Your task to perform on an android device: set the stopwatch Image 0: 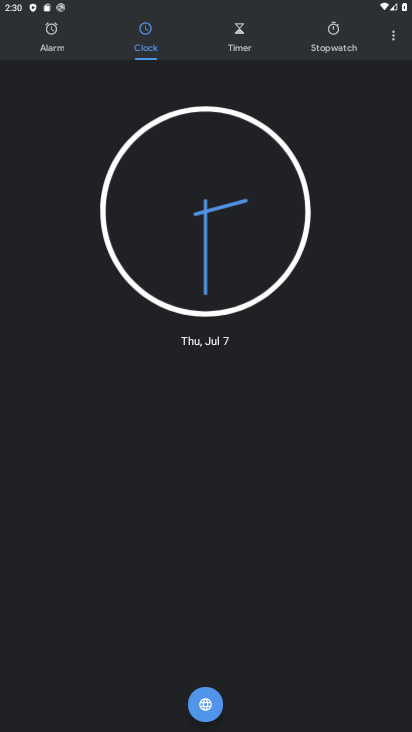
Step 0: click (346, 40)
Your task to perform on an android device: set the stopwatch Image 1: 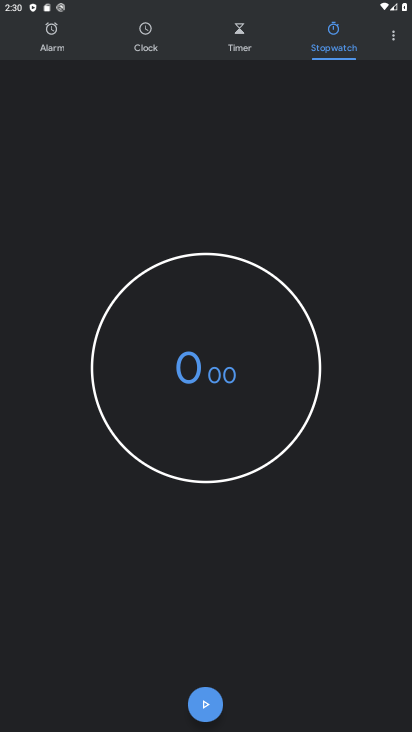
Step 1: click (199, 363)
Your task to perform on an android device: set the stopwatch Image 2: 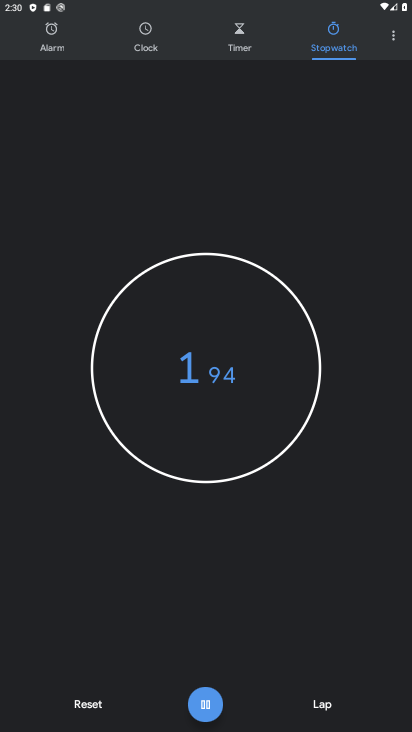
Step 2: click (205, 689)
Your task to perform on an android device: set the stopwatch Image 3: 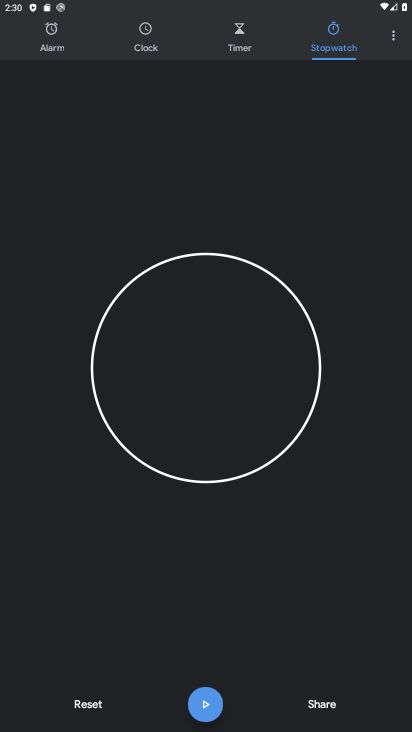
Step 3: task complete